Your task to perform on an android device: toggle wifi Image 0: 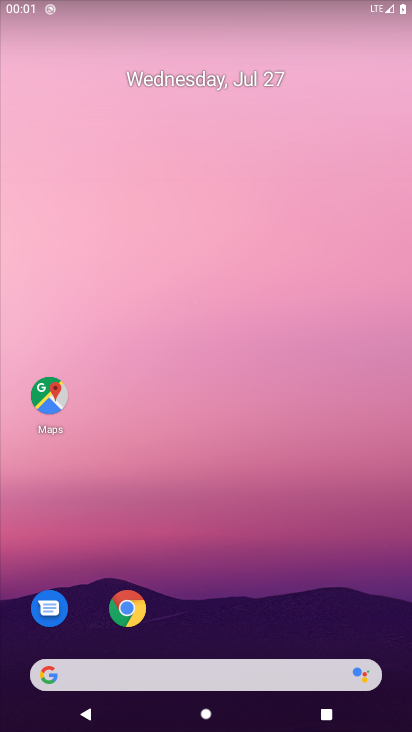
Step 0: press home button
Your task to perform on an android device: toggle wifi Image 1: 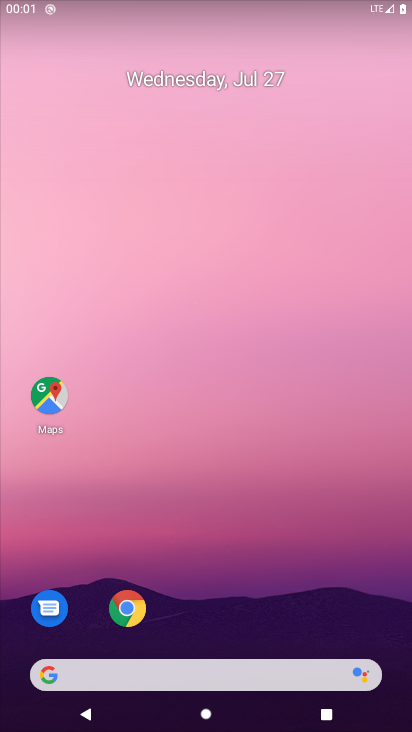
Step 1: drag from (235, 1) to (225, 299)
Your task to perform on an android device: toggle wifi Image 2: 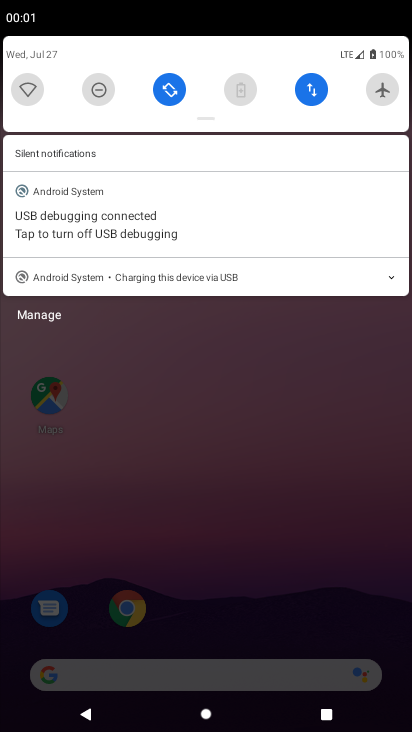
Step 2: click (38, 86)
Your task to perform on an android device: toggle wifi Image 3: 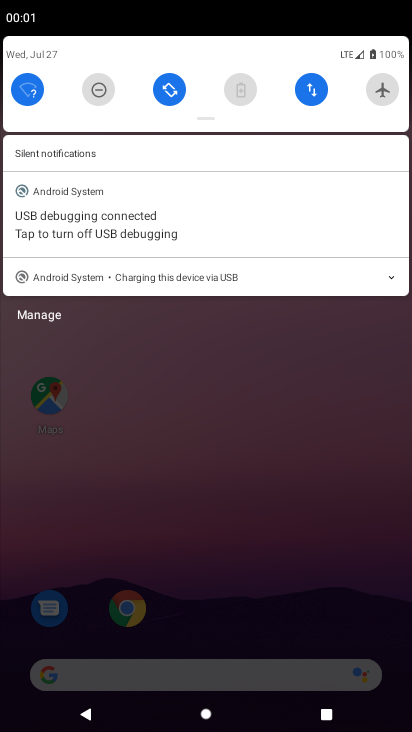
Step 3: click (221, 346)
Your task to perform on an android device: toggle wifi Image 4: 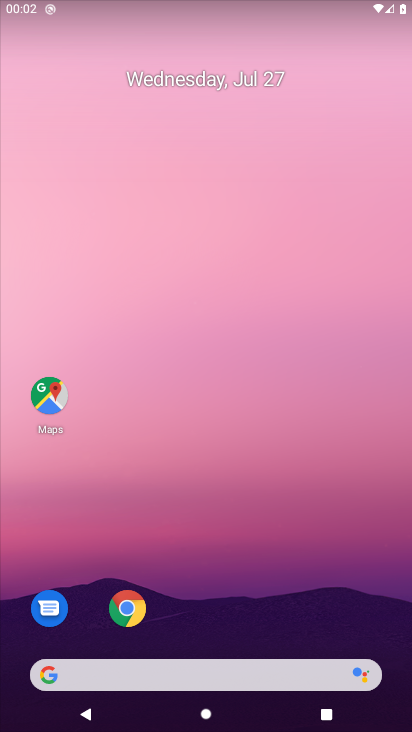
Step 4: task complete